Your task to perform on an android device: check the backup settings in the google photos Image 0: 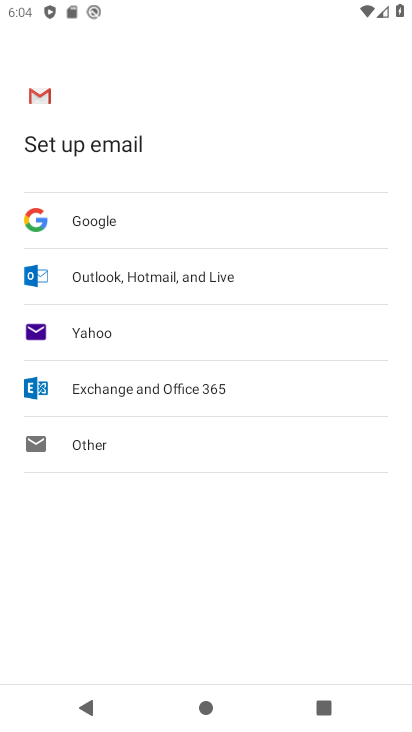
Step 0: press home button
Your task to perform on an android device: check the backup settings in the google photos Image 1: 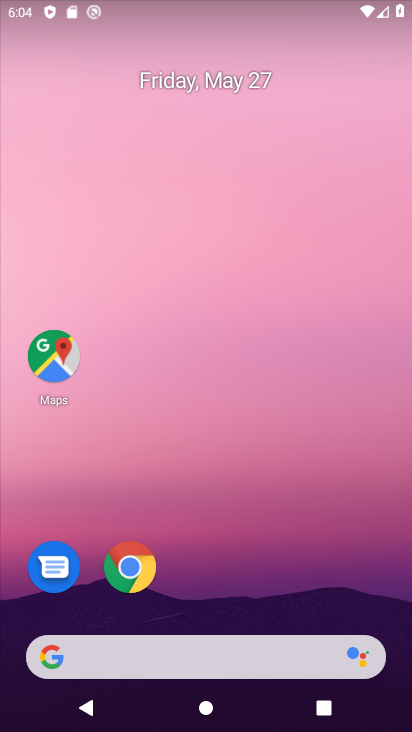
Step 1: drag from (238, 582) to (226, 9)
Your task to perform on an android device: check the backup settings in the google photos Image 2: 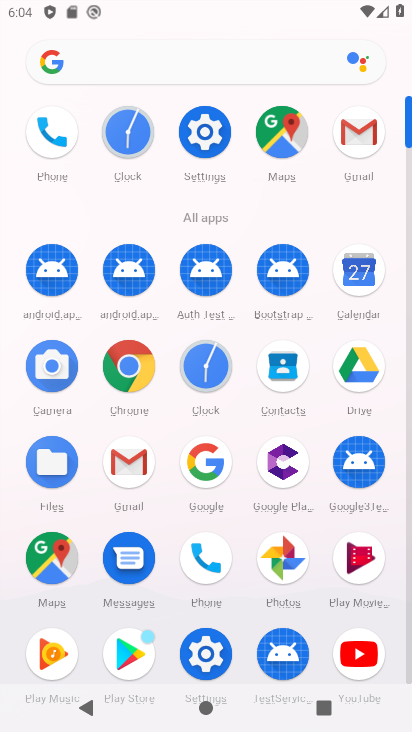
Step 2: click (279, 551)
Your task to perform on an android device: check the backup settings in the google photos Image 3: 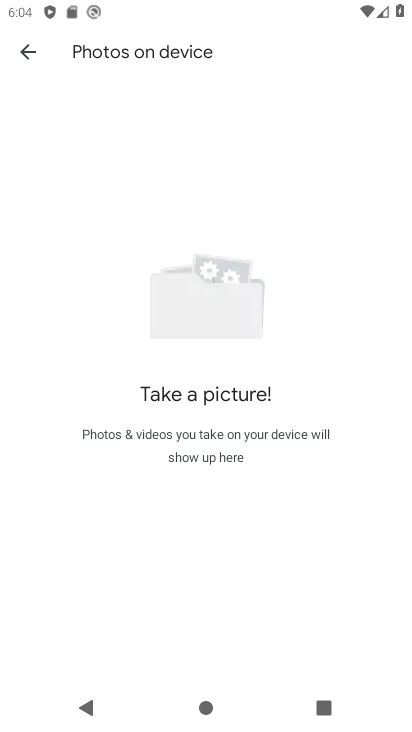
Step 3: click (21, 47)
Your task to perform on an android device: check the backup settings in the google photos Image 4: 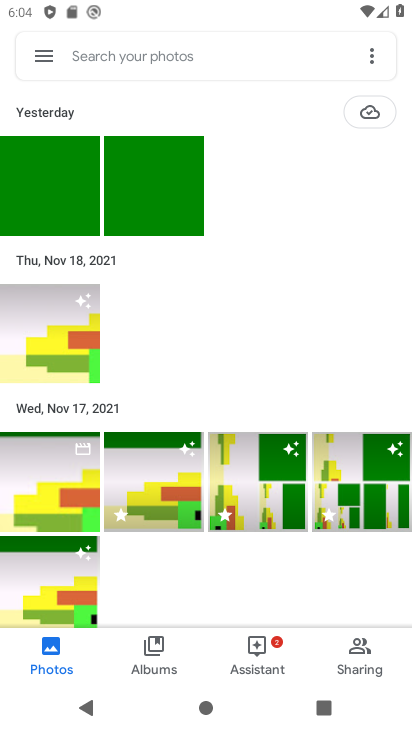
Step 4: click (47, 51)
Your task to perform on an android device: check the backup settings in the google photos Image 5: 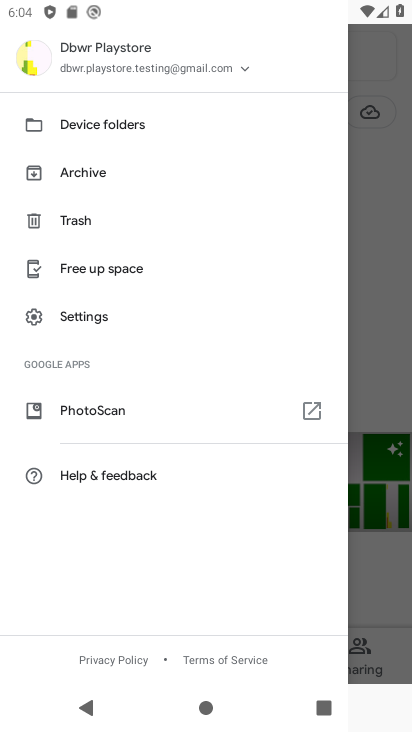
Step 5: click (97, 321)
Your task to perform on an android device: check the backup settings in the google photos Image 6: 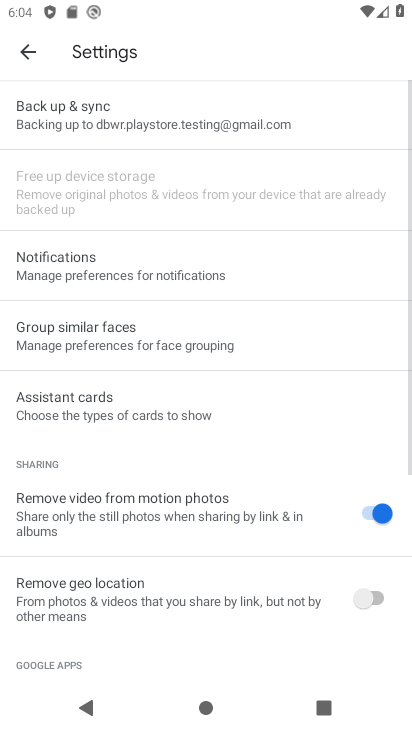
Step 6: click (75, 115)
Your task to perform on an android device: check the backup settings in the google photos Image 7: 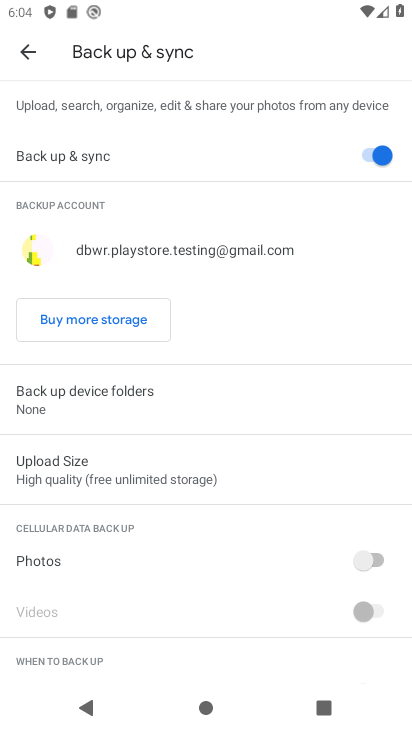
Step 7: task complete